Your task to perform on an android device: change notification settings in the gmail app Image 0: 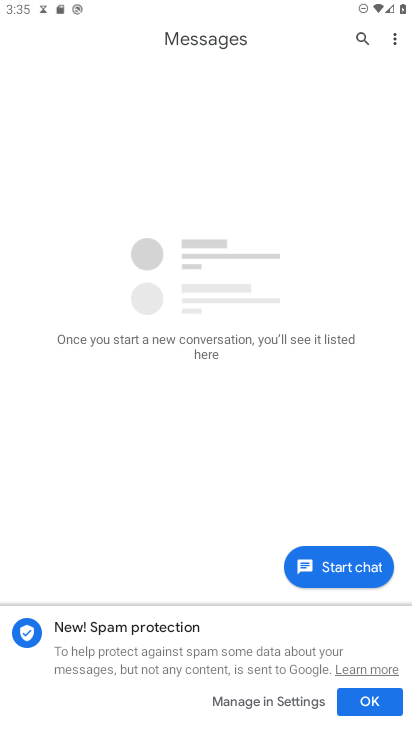
Step 0: press home button
Your task to perform on an android device: change notification settings in the gmail app Image 1: 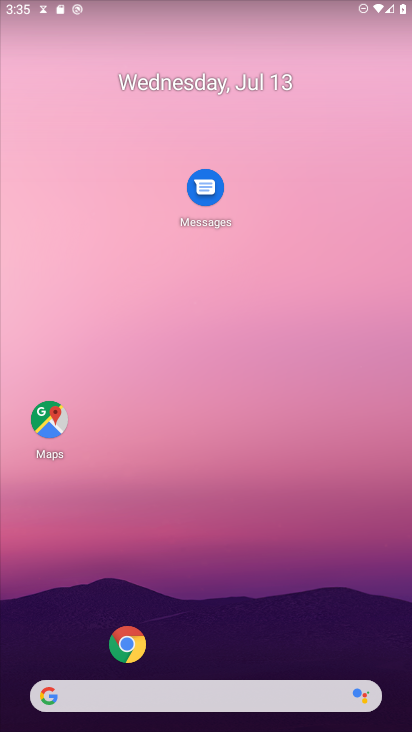
Step 1: drag from (43, 633) to (349, 79)
Your task to perform on an android device: change notification settings in the gmail app Image 2: 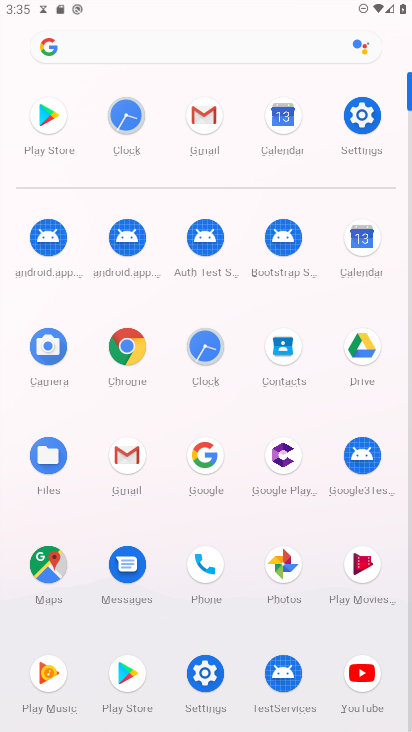
Step 2: click (141, 451)
Your task to perform on an android device: change notification settings in the gmail app Image 3: 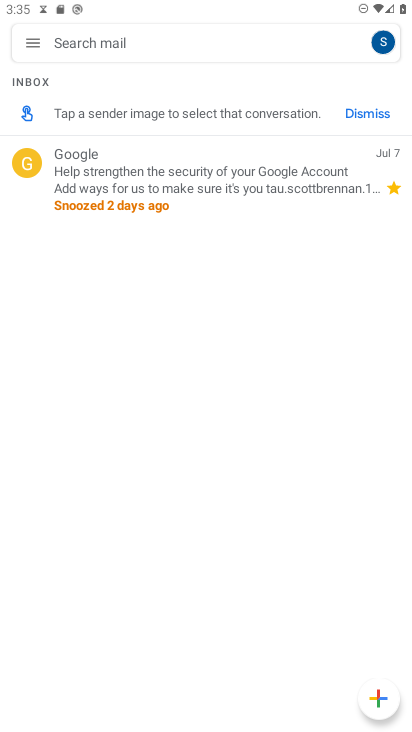
Step 3: click (32, 42)
Your task to perform on an android device: change notification settings in the gmail app Image 4: 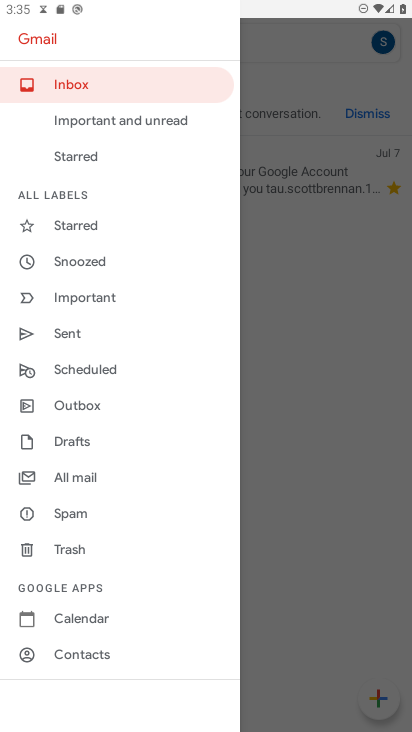
Step 4: drag from (115, 704) to (223, 360)
Your task to perform on an android device: change notification settings in the gmail app Image 5: 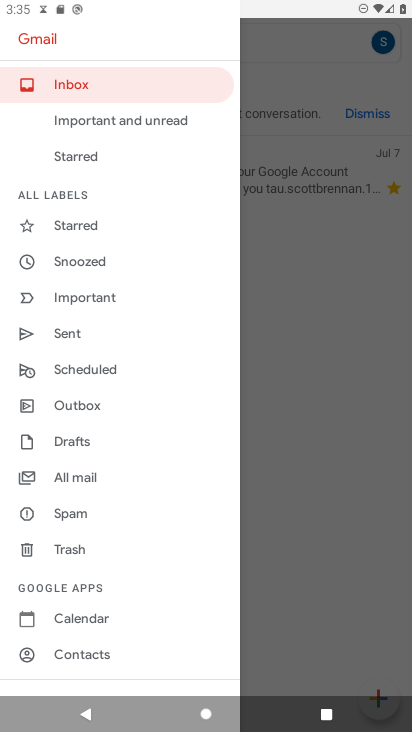
Step 5: drag from (116, 670) to (244, 138)
Your task to perform on an android device: change notification settings in the gmail app Image 6: 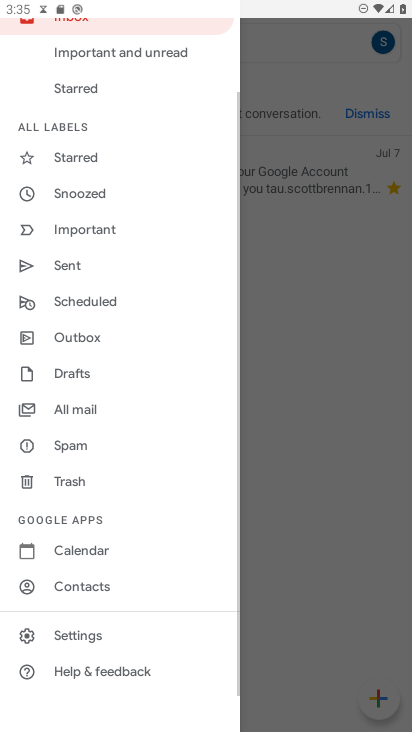
Step 6: click (103, 638)
Your task to perform on an android device: change notification settings in the gmail app Image 7: 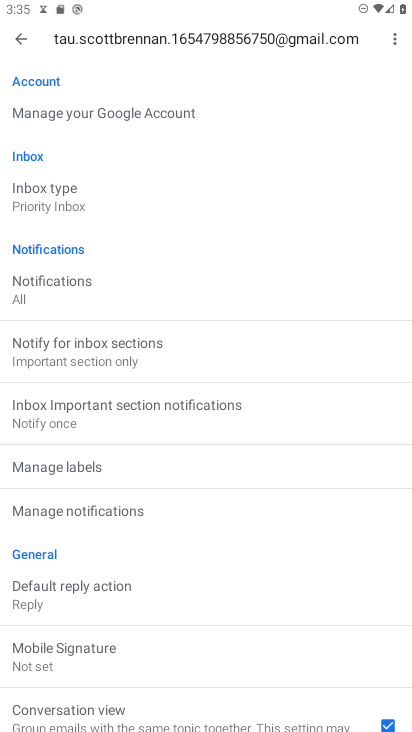
Step 7: click (52, 298)
Your task to perform on an android device: change notification settings in the gmail app Image 8: 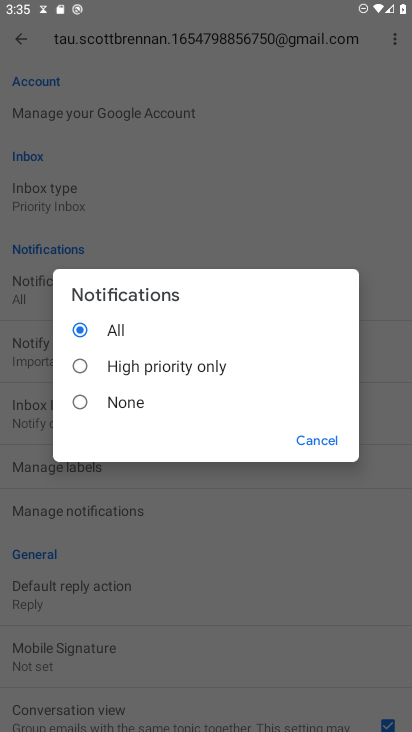
Step 8: click (317, 434)
Your task to perform on an android device: change notification settings in the gmail app Image 9: 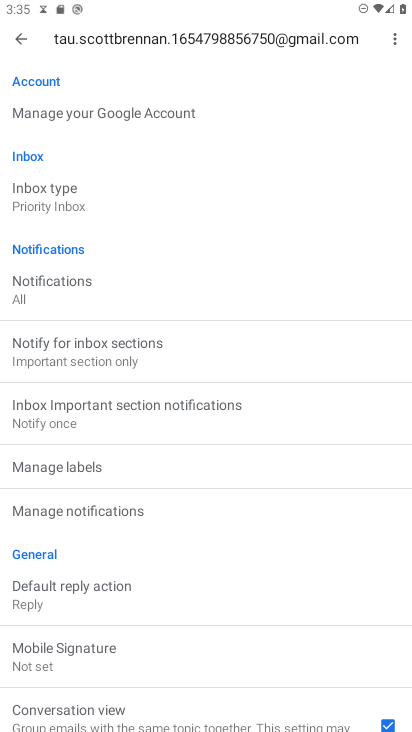
Step 9: task complete